Your task to perform on an android device: Show me popular videos on Youtube Image 0: 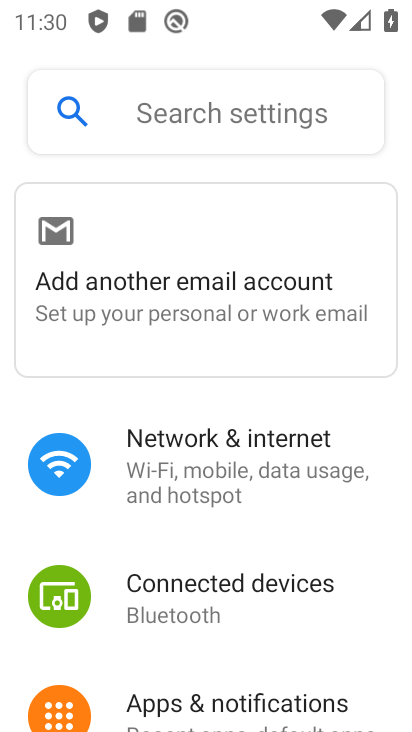
Step 0: press home button
Your task to perform on an android device: Show me popular videos on Youtube Image 1: 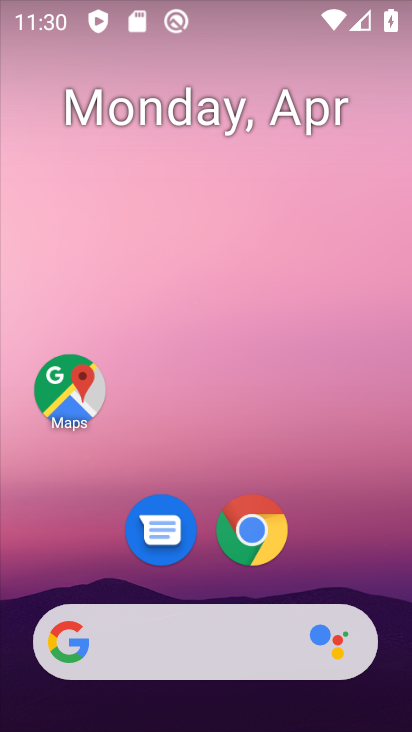
Step 1: drag from (210, 579) to (201, 0)
Your task to perform on an android device: Show me popular videos on Youtube Image 2: 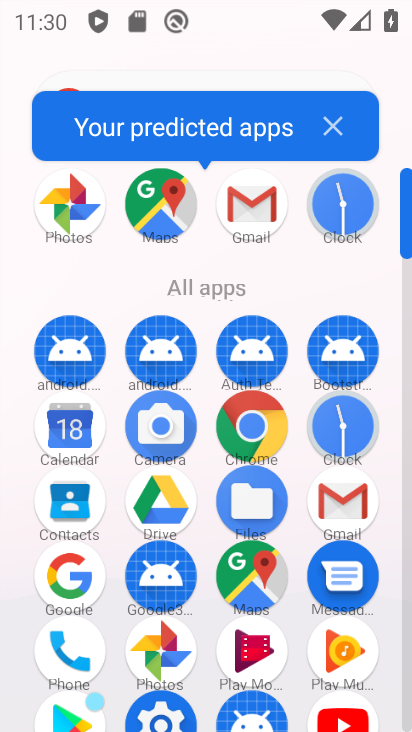
Step 2: click (348, 724)
Your task to perform on an android device: Show me popular videos on Youtube Image 3: 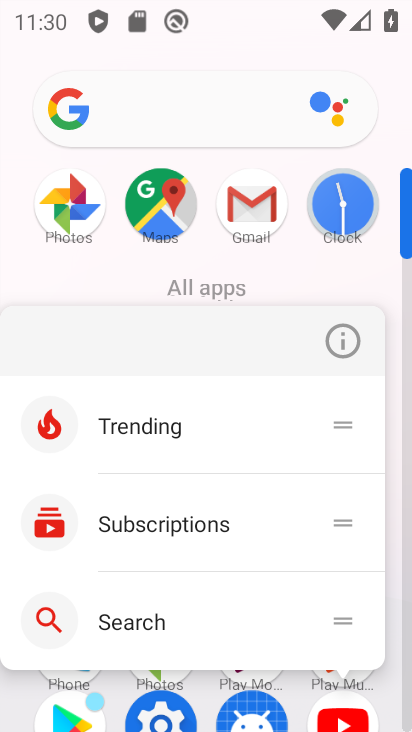
Step 3: click (346, 719)
Your task to perform on an android device: Show me popular videos on Youtube Image 4: 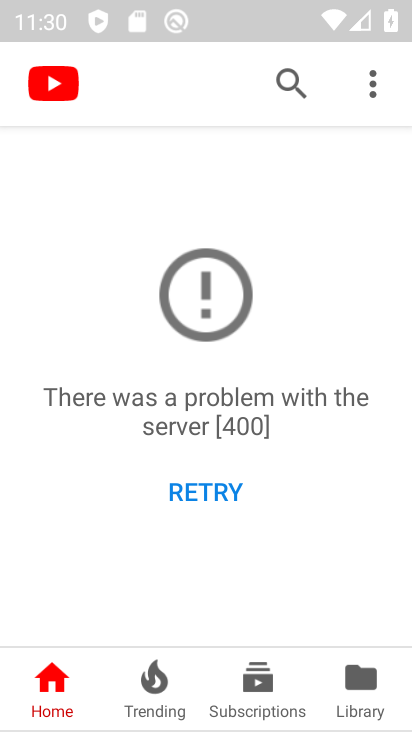
Step 4: click (152, 683)
Your task to perform on an android device: Show me popular videos on Youtube Image 5: 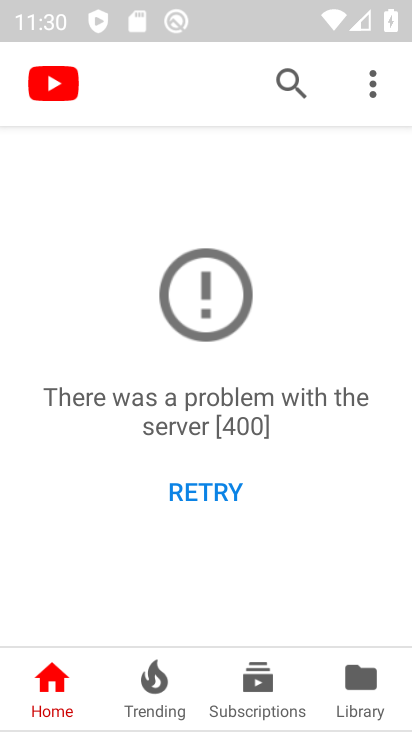
Step 5: click (157, 703)
Your task to perform on an android device: Show me popular videos on Youtube Image 6: 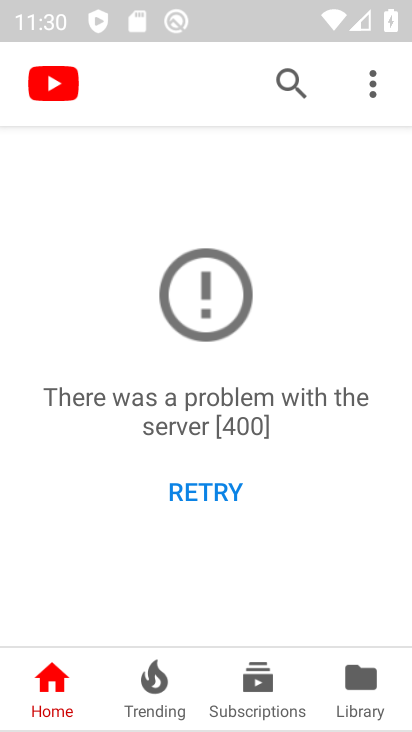
Step 6: click (147, 660)
Your task to perform on an android device: Show me popular videos on Youtube Image 7: 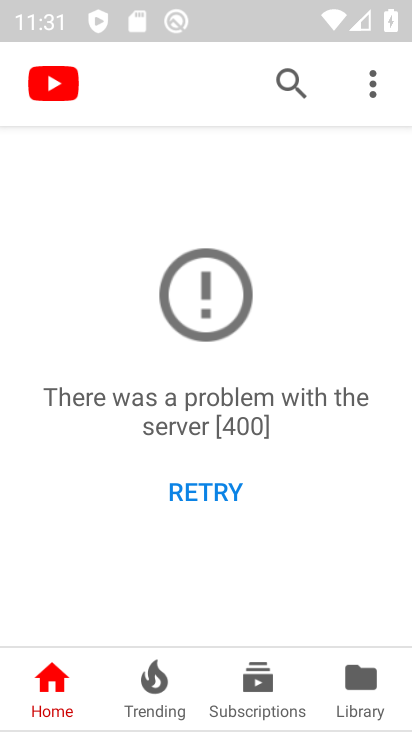
Step 7: click (160, 682)
Your task to perform on an android device: Show me popular videos on Youtube Image 8: 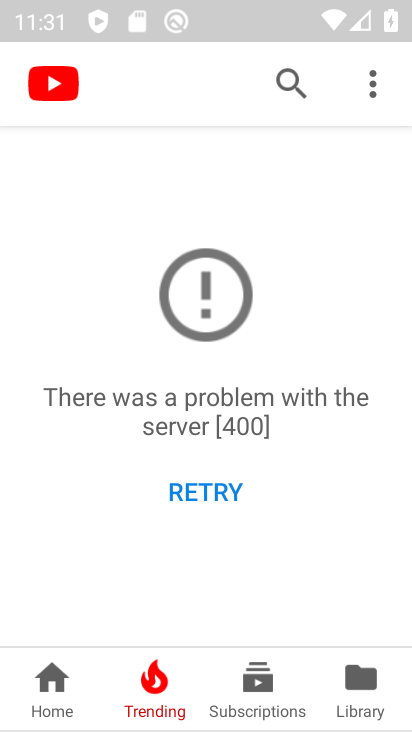
Step 8: task complete